Your task to perform on an android device: Search for Italian restaurants on Maps Image 0: 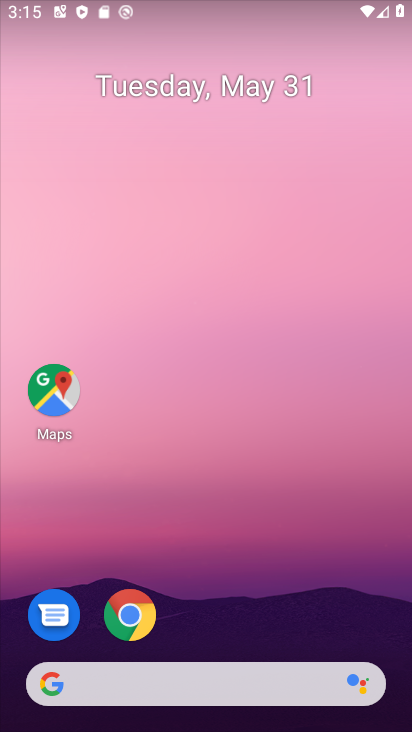
Step 0: drag from (251, 695) to (177, 185)
Your task to perform on an android device: Search for Italian restaurants on Maps Image 1: 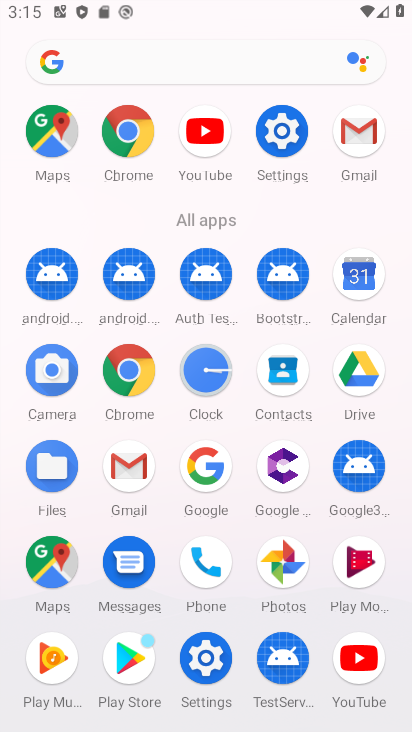
Step 1: click (61, 557)
Your task to perform on an android device: Search for Italian restaurants on Maps Image 2: 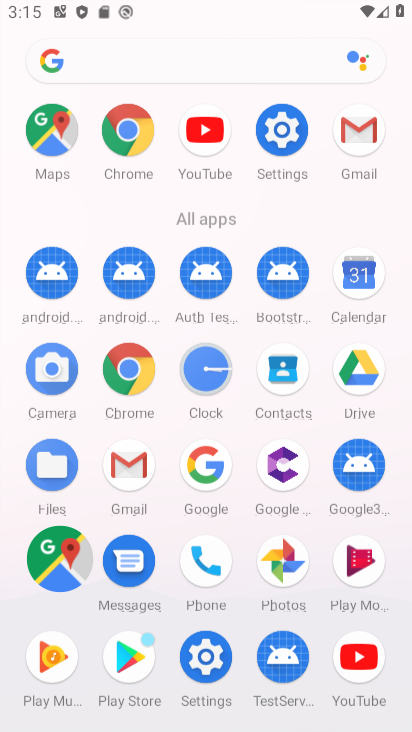
Step 2: click (45, 564)
Your task to perform on an android device: Search for Italian restaurants on Maps Image 3: 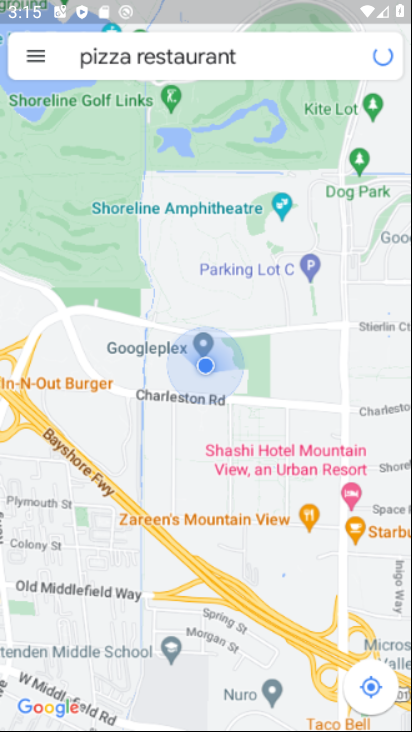
Step 3: click (45, 564)
Your task to perform on an android device: Search for Italian restaurants on Maps Image 4: 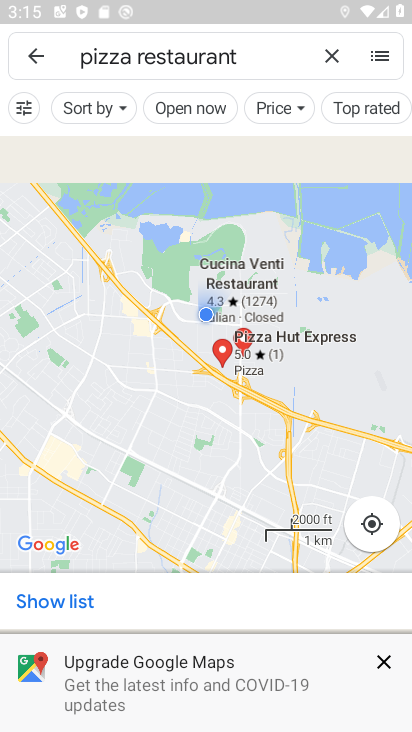
Step 4: click (338, 59)
Your task to perform on an android device: Search for Italian restaurants on Maps Image 5: 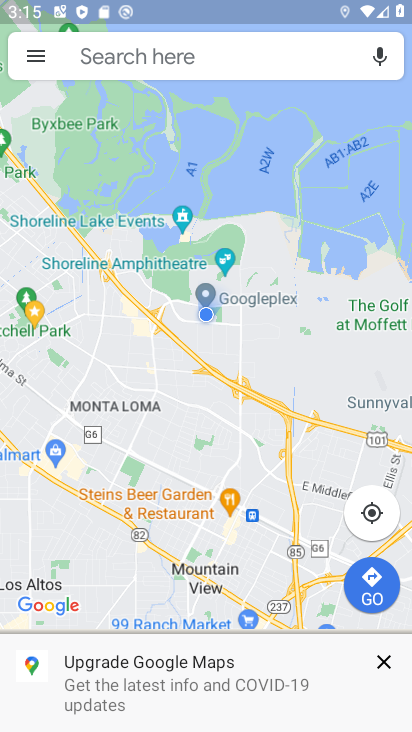
Step 5: click (93, 56)
Your task to perform on an android device: Search for Italian restaurants on Maps Image 6: 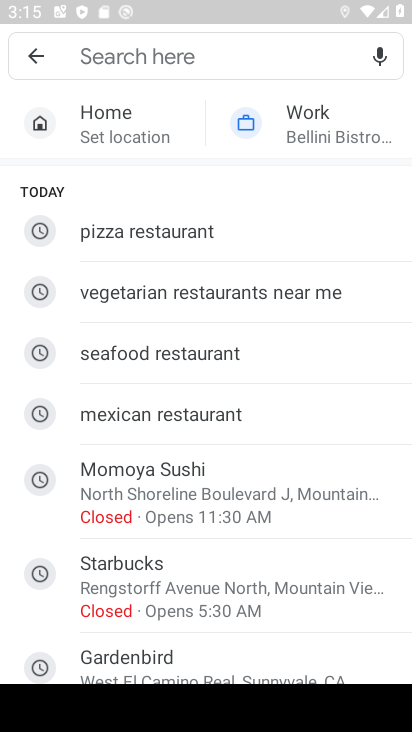
Step 6: type "italian restaurants"
Your task to perform on an android device: Search for Italian restaurants on Maps Image 7: 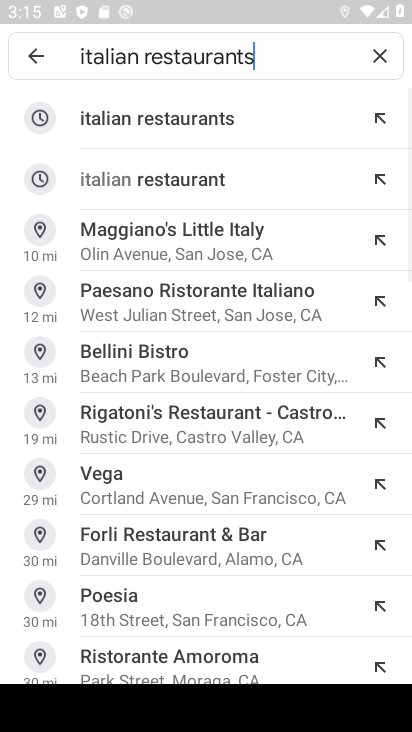
Step 7: click (175, 129)
Your task to perform on an android device: Search for Italian restaurants on Maps Image 8: 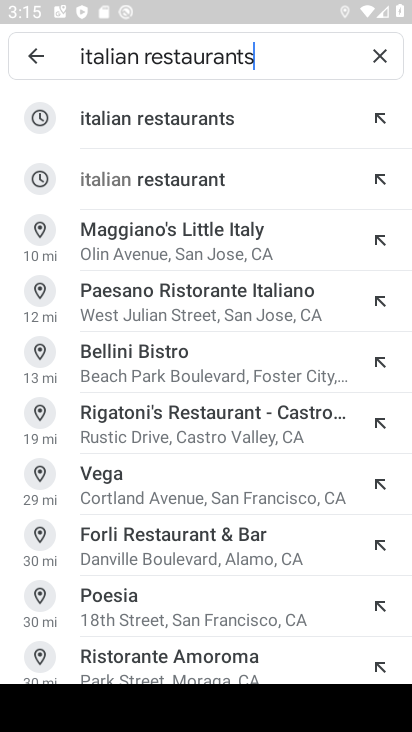
Step 8: click (169, 124)
Your task to perform on an android device: Search for Italian restaurants on Maps Image 9: 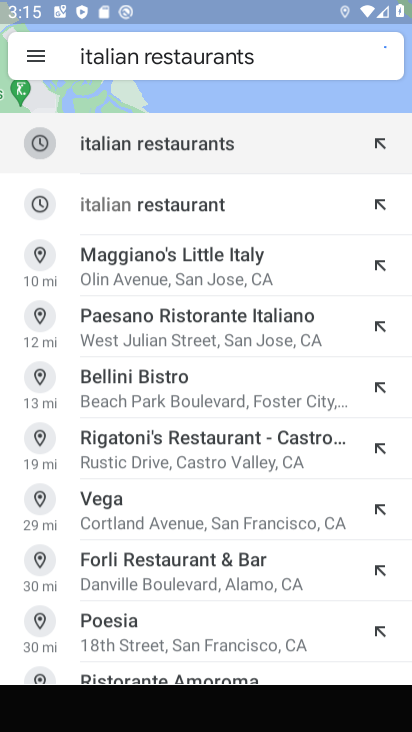
Step 9: click (168, 122)
Your task to perform on an android device: Search for Italian restaurants on Maps Image 10: 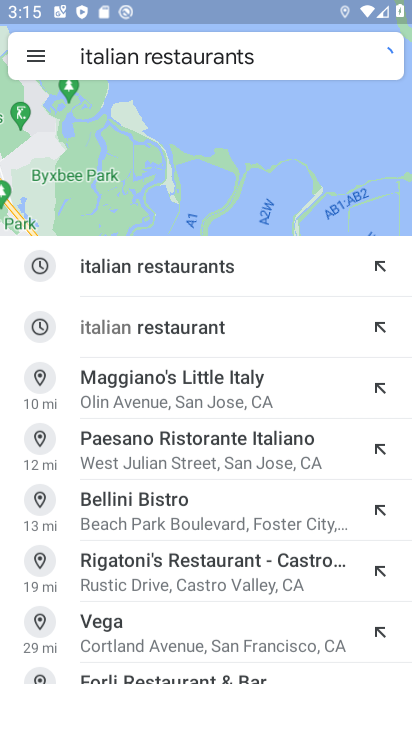
Step 10: click (168, 122)
Your task to perform on an android device: Search for Italian restaurants on Maps Image 11: 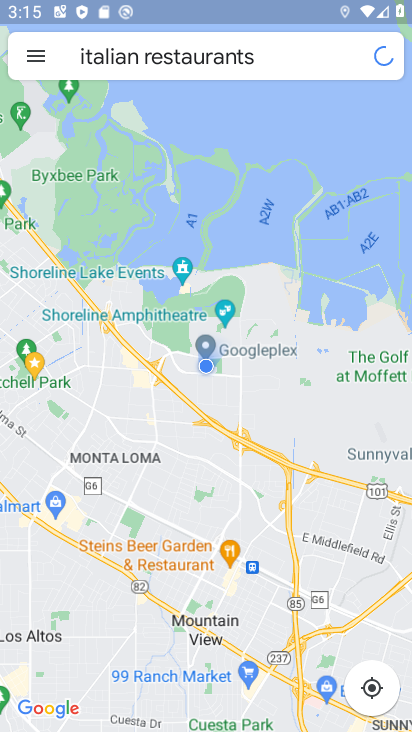
Step 11: click (167, 122)
Your task to perform on an android device: Search for Italian restaurants on Maps Image 12: 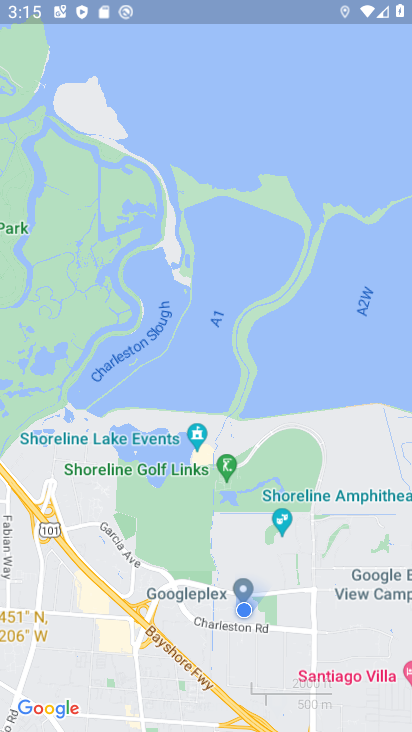
Step 12: task complete